Your task to perform on an android device: change your default location settings in chrome Image 0: 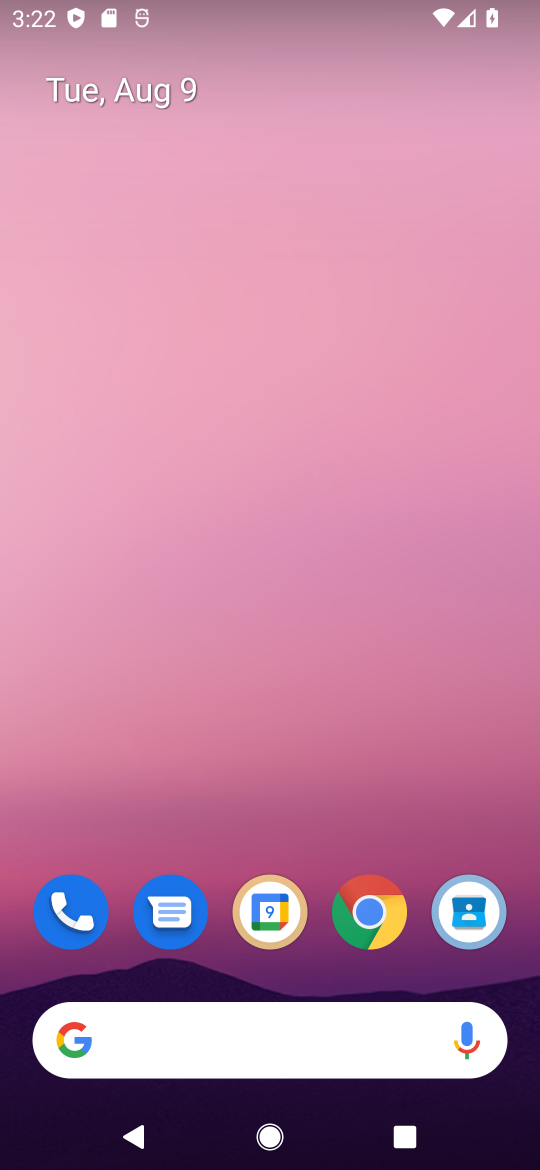
Step 0: click (366, 913)
Your task to perform on an android device: change your default location settings in chrome Image 1: 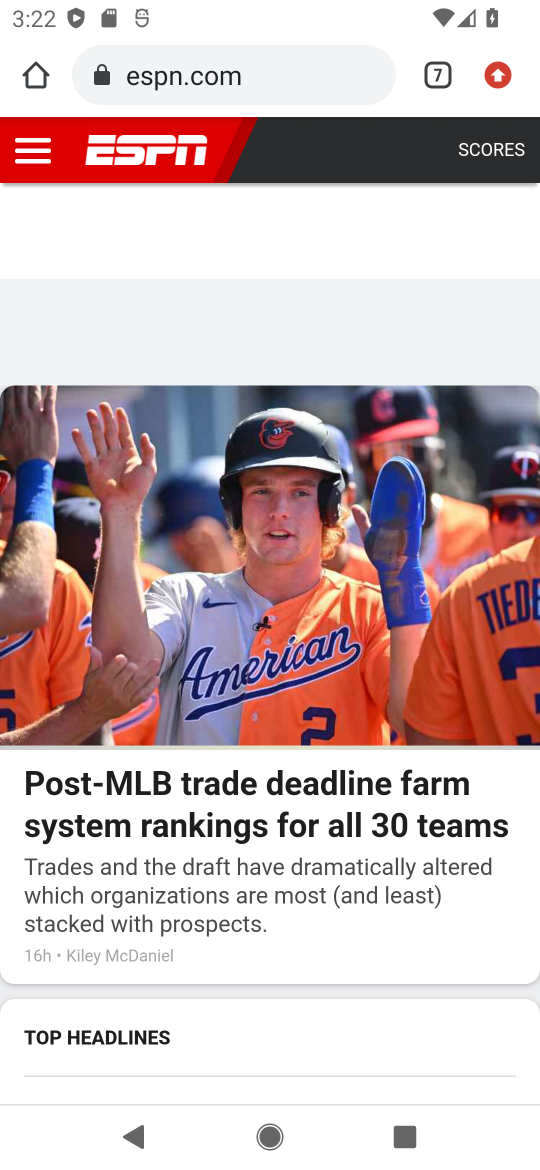
Step 1: click (490, 81)
Your task to perform on an android device: change your default location settings in chrome Image 2: 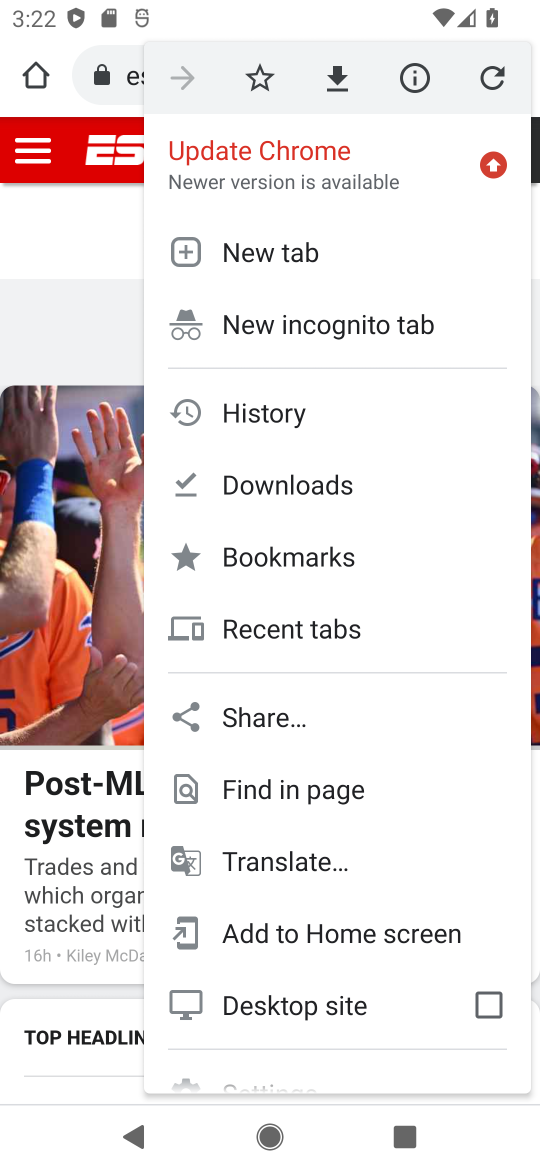
Step 2: drag from (368, 821) to (357, 325)
Your task to perform on an android device: change your default location settings in chrome Image 3: 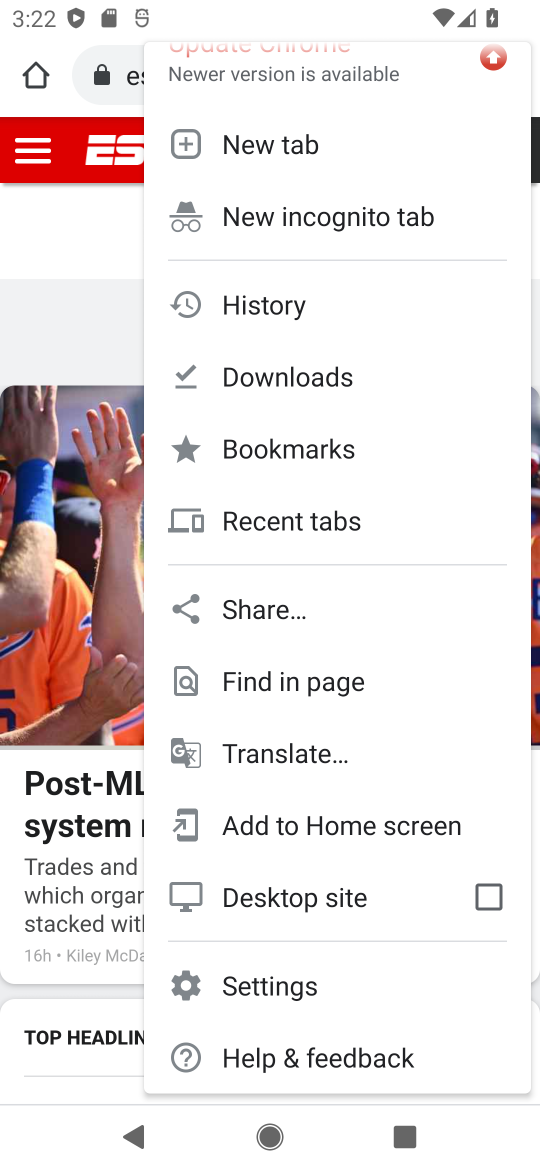
Step 3: click (257, 984)
Your task to perform on an android device: change your default location settings in chrome Image 4: 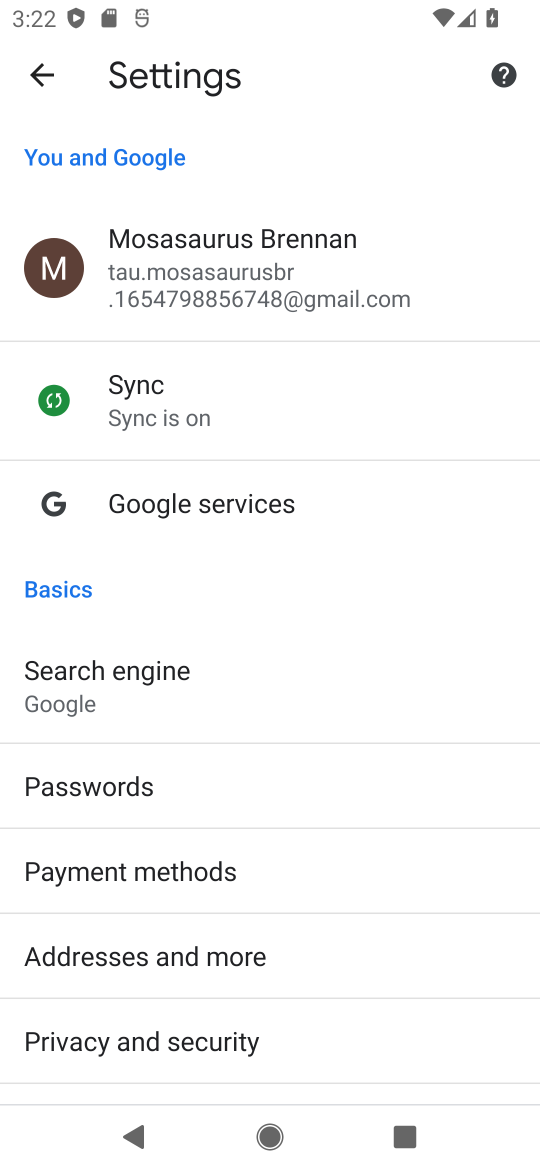
Step 4: drag from (290, 943) to (272, 308)
Your task to perform on an android device: change your default location settings in chrome Image 5: 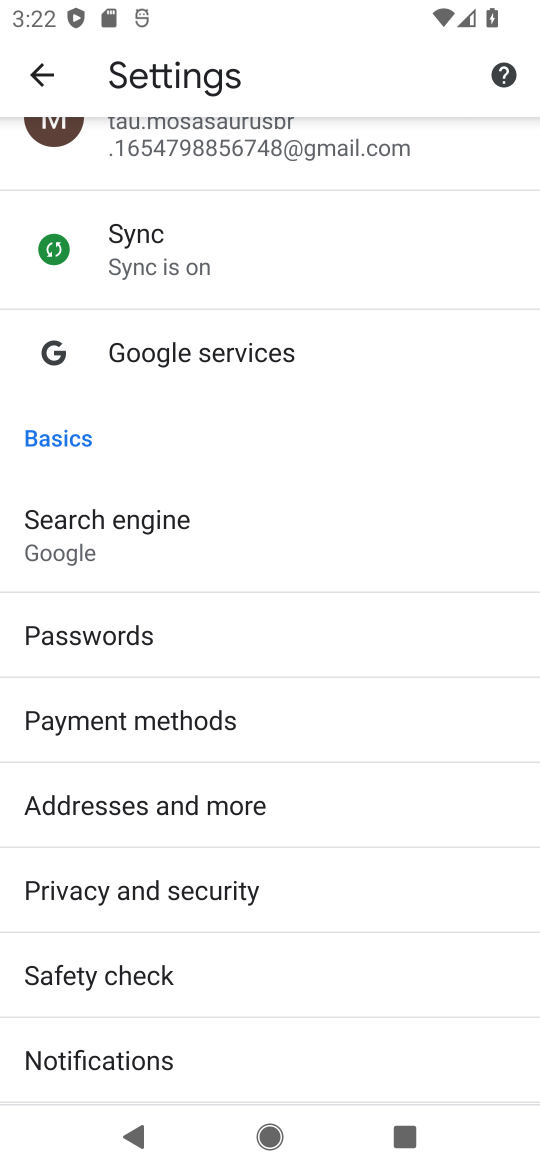
Step 5: drag from (311, 910) to (274, 500)
Your task to perform on an android device: change your default location settings in chrome Image 6: 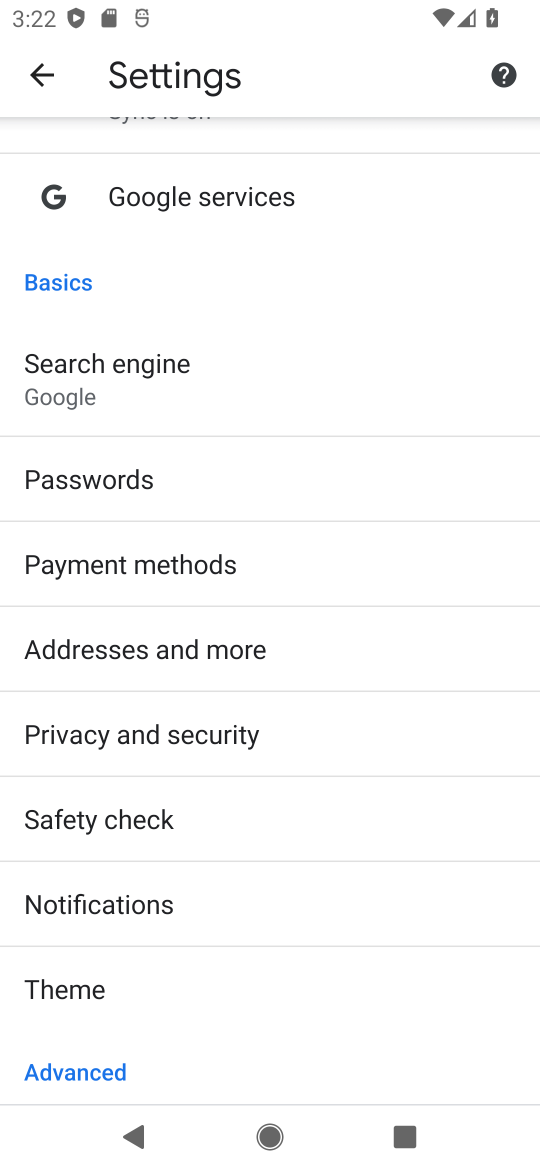
Step 6: drag from (246, 996) to (272, 365)
Your task to perform on an android device: change your default location settings in chrome Image 7: 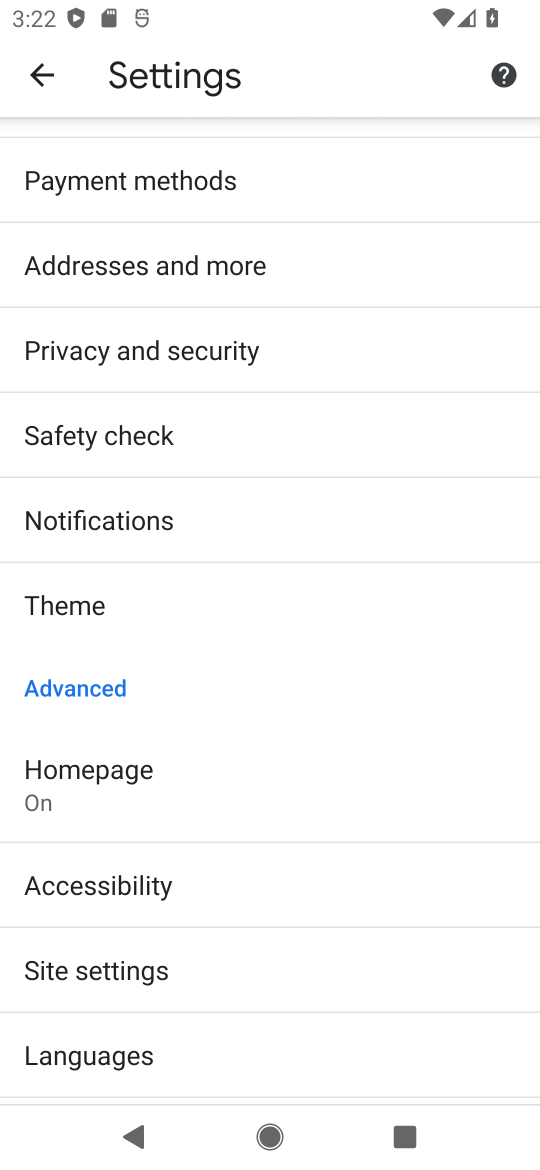
Step 7: click (85, 968)
Your task to perform on an android device: change your default location settings in chrome Image 8: 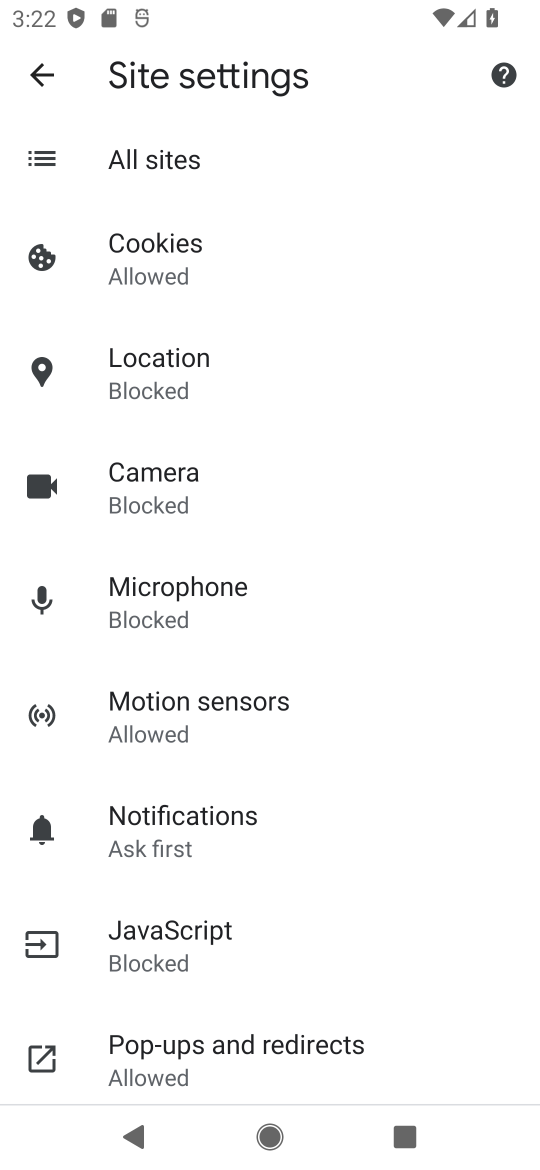
Step 8: click (162, 361)
Your task to perform on an android device: change your default location settings in chrome Image 9: 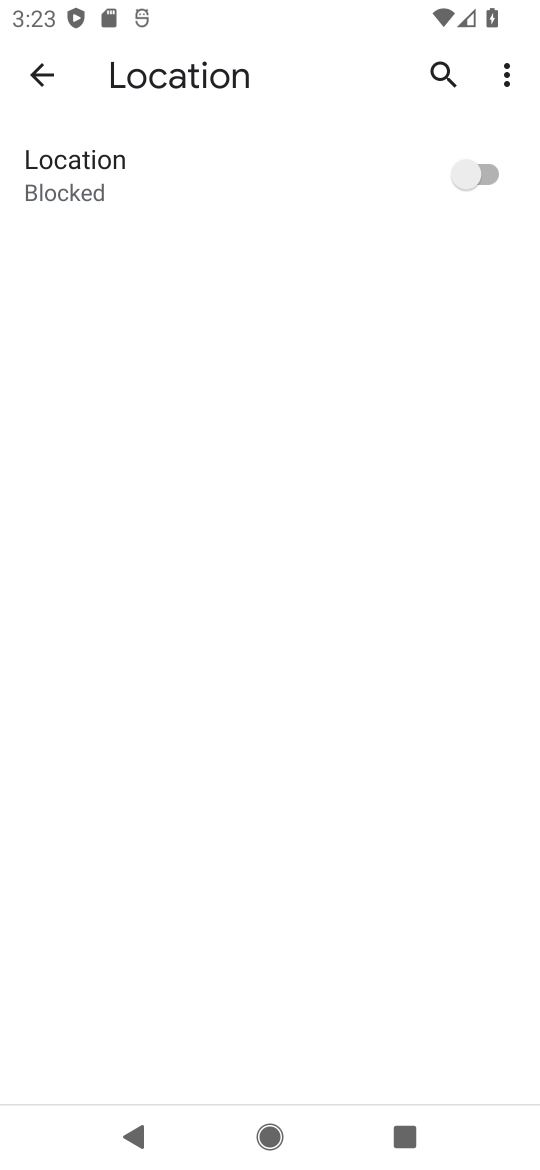
Step 9: task complete